Your task to perform on an android device: install app "Google Maps" Image 0: 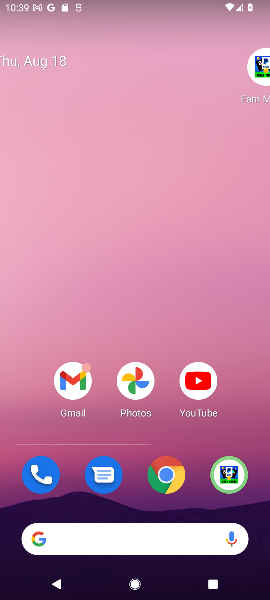
Step 0: press home button
Your task to perform on an android device: install app "Google Maps" Image 1: 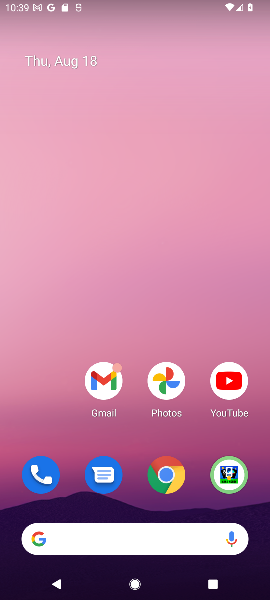
Step 1: drag from (134, 460) to (141, 2)
Your task to perform on an android device: install app "Google Maps" Image 2: 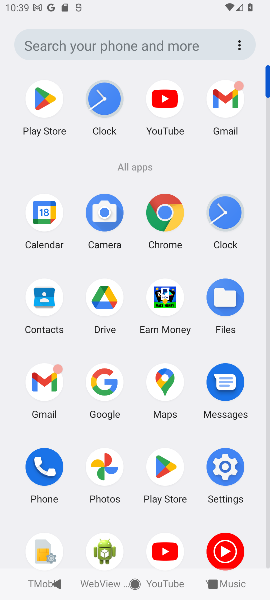
Step 2: drag from (131, 518) to (124, 98)
Your task to perform on an android device: install app "Google Maps" Image 3: 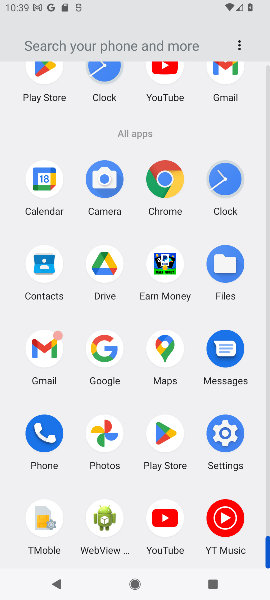
Step 3: click (163, 432)
Your task to perform on an android device: install app "Google Maps" Image 4: 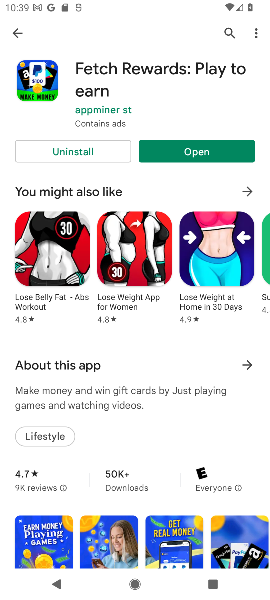
Step 4: click (15, 32)
Your task to perform on an android device: install app "Google Maps" Image 5: 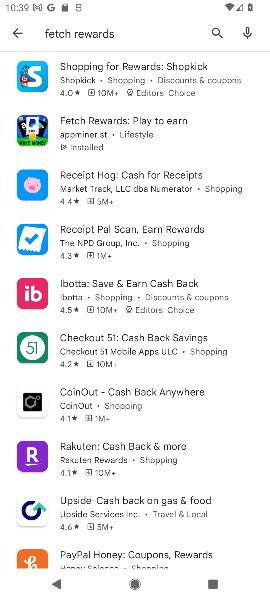
Step 5: click (212, 33)
Your task to perform on an android device: install app "Google Maps" Image 6: 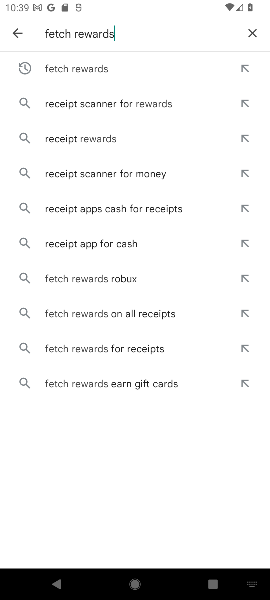
Step 6: click (254, 35)
Your task to perform on an android device: install app "Google Maps" Image 7: 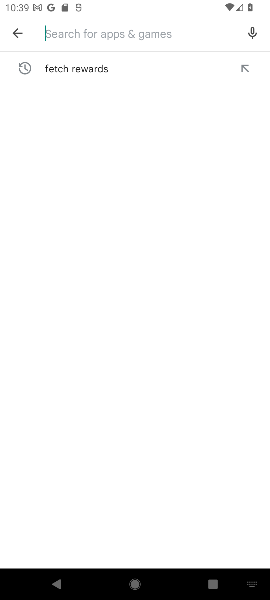
Step 7: type "Google Maps"
Your task to perform on an android device: install app "Google Maps" Image 8: 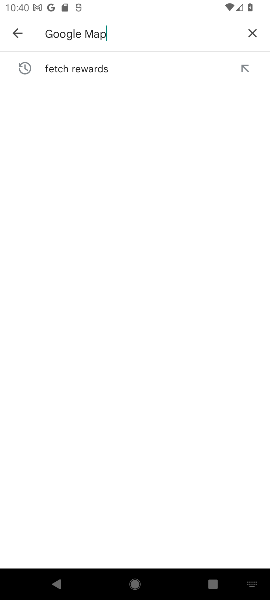
Step 8: type ""
Your task to perform on an android device: install app "Google Maps" Image 9: 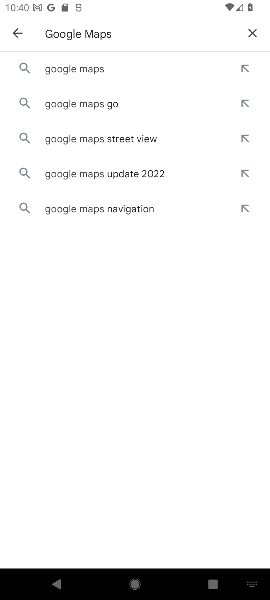
Step 9: click (114, 68)
Your task to perform on an android device: install app "Google Maps" Image 10: 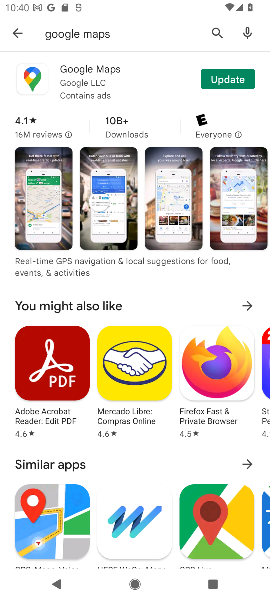
Step 10: click (225, 74)
Your task to perform on an android device: install app "Google Maps" Image 11: 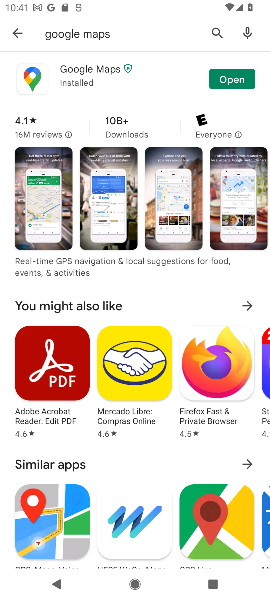
Step 11: click (231, 74)
Your task to perform on an android device: install app "Google Maps" Image 12: 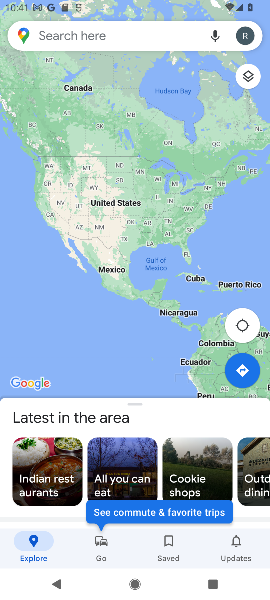
Step 12: task complete